Your task to perform on an android device: Search for jbl charge 4 on ebay.com, select the first entry, add it to the cart, then select checkout. Image 0: 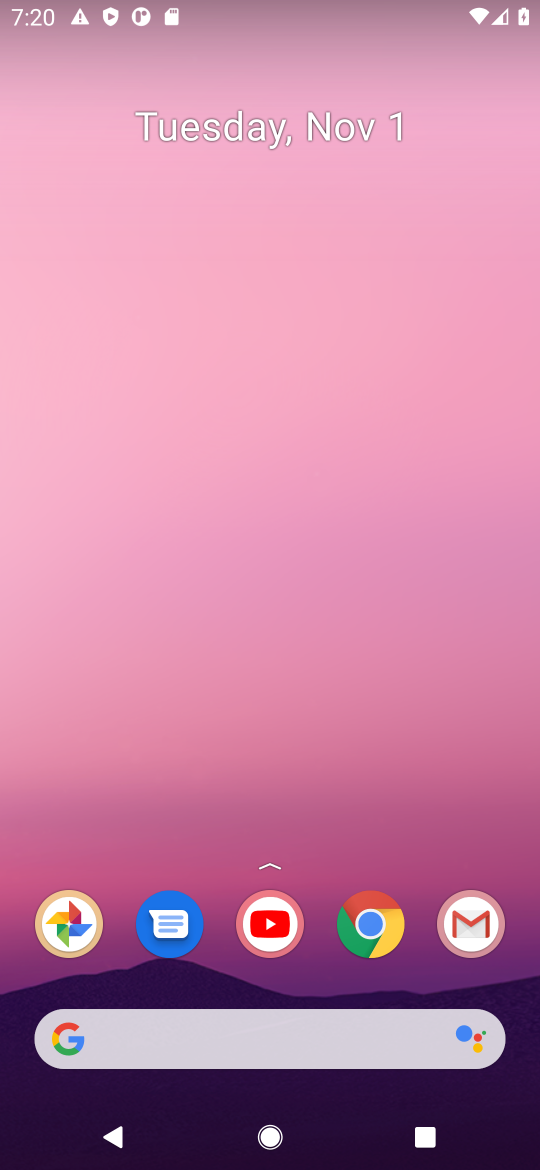
Step 0: press home button
Your task to perform on an android device: Search for jbl charge 4 on ebay.com, select the first entry, add it to the cart, then select checkout. Image 1: 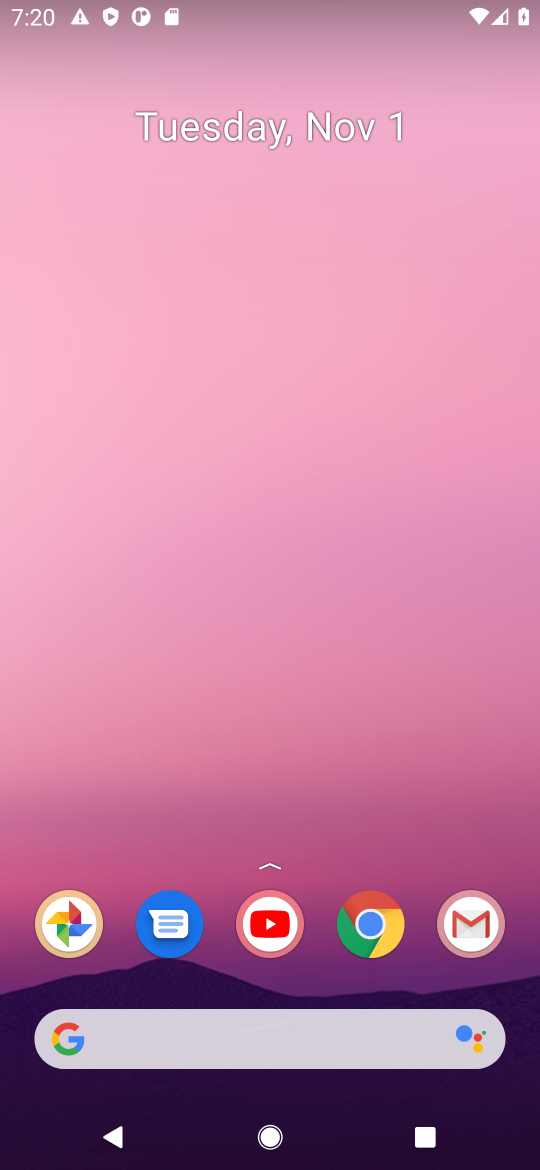
Step 1: click (94, 1039)
Your task to perform on an android device: Search for jbl charge 4 on ebay.com, select the first entry, add it to the cart, then select checkout. Image 2: 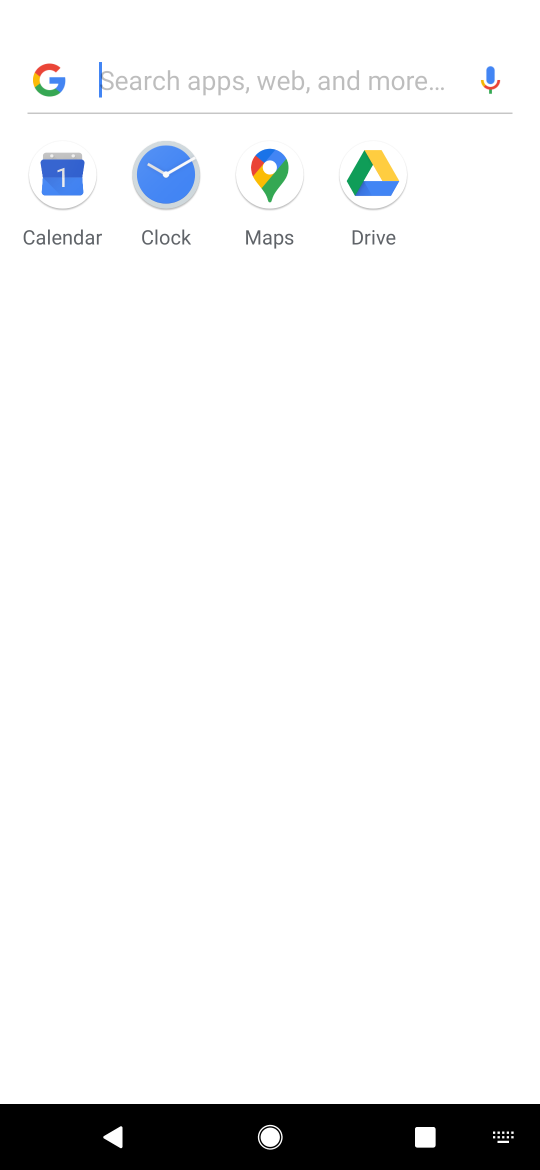
Step 2: type "ebay.com,"
Your task to perform on an android device: Search for jbl charge 4 on ebay.com, select the first entry, add it to the cart, then select checkout. Image 3: 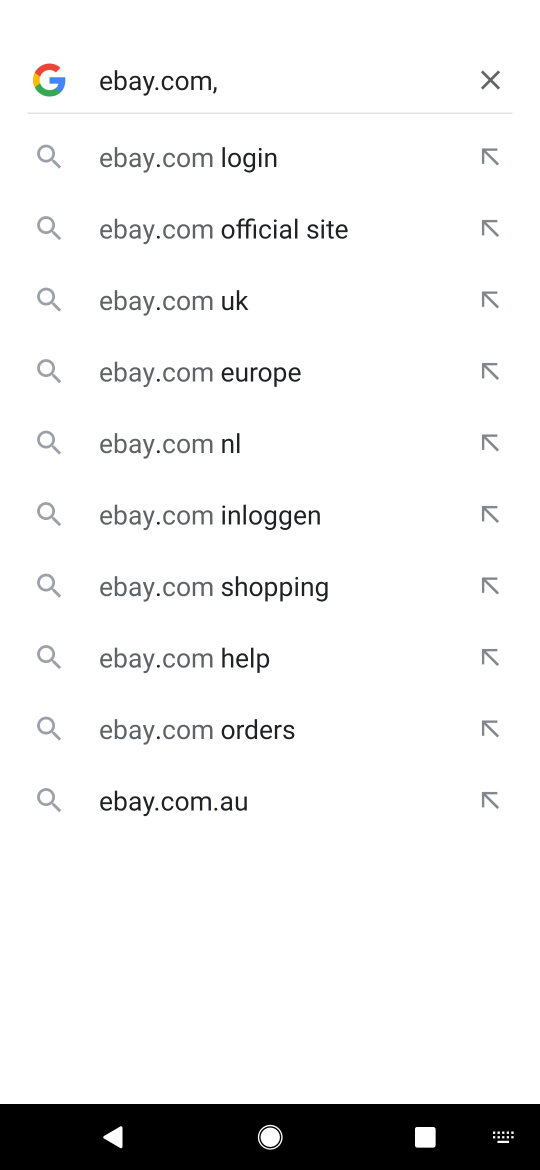
Step 3: press enter
Your task to perform on an android device: Search for jbl charge 4 on ebay.com, select the first entry, add it to the cart, then select checkout. Image 4: 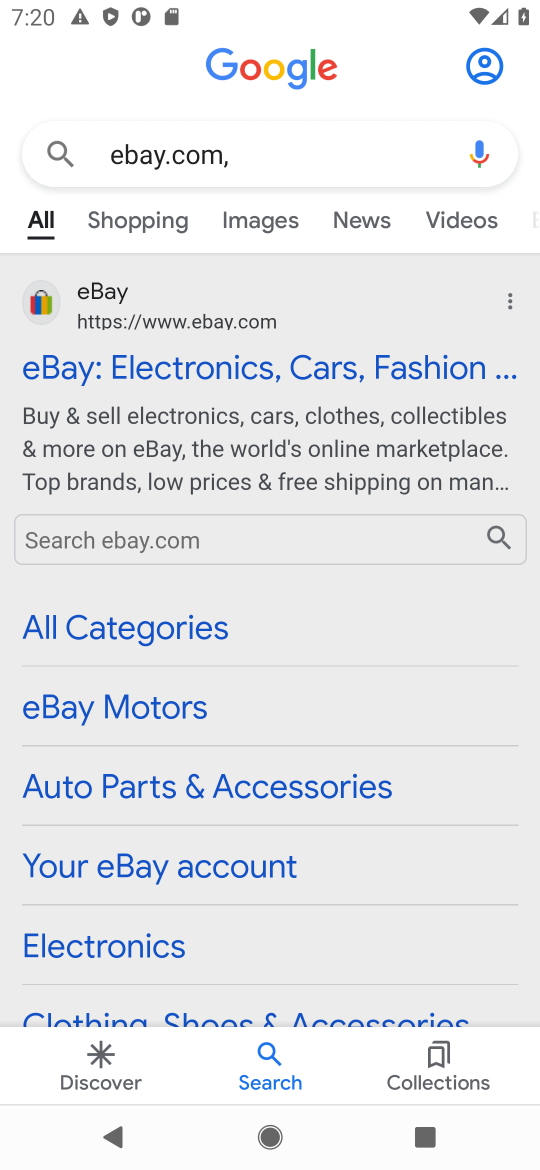
Step 4: click (314, 365)
Your task to perform on an android device: Search for jbl charge 4 on ebay.com, select the first entry, add it to the cart, then select checkout. Image 5: 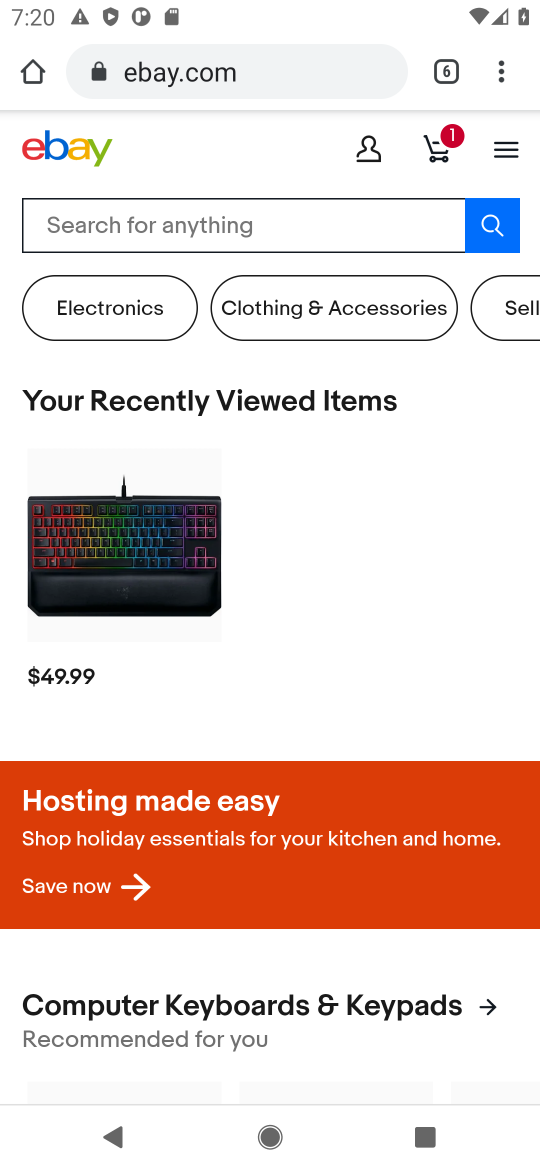
Step 5: click (46, 218)
Your task to perform on an android device: Search for jbl charge 4 on ebay.com, select the first entry, add it to the cart, then select checkout. Image 6: 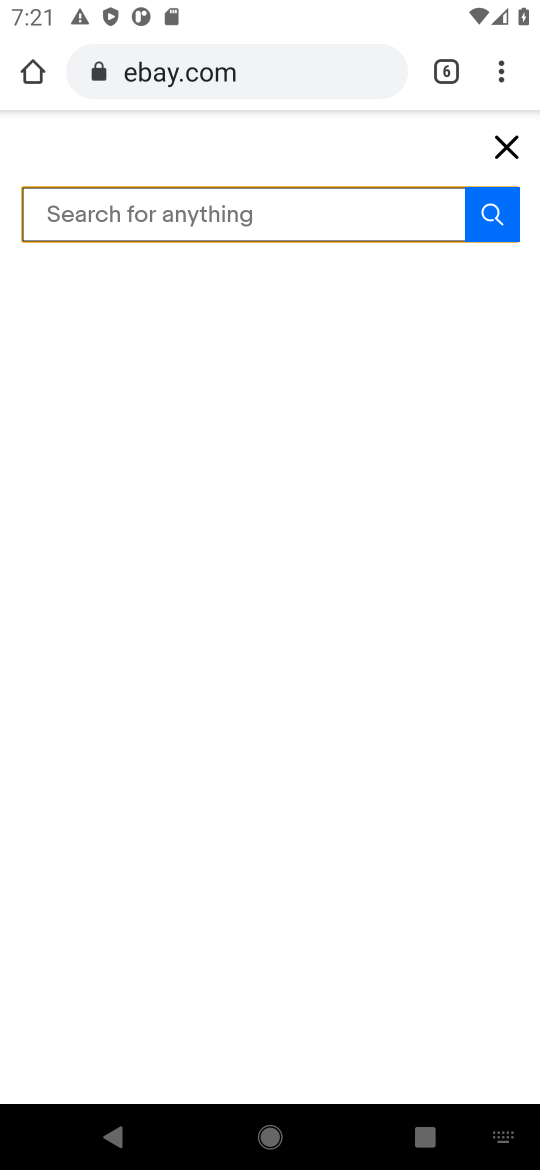
Step 6: type "jbl charge 4"
Your task to perform on an android device: Search for jbl charge 4 on ebay.com, select the first entry, add it to the cart, then select checkout. Image 7: 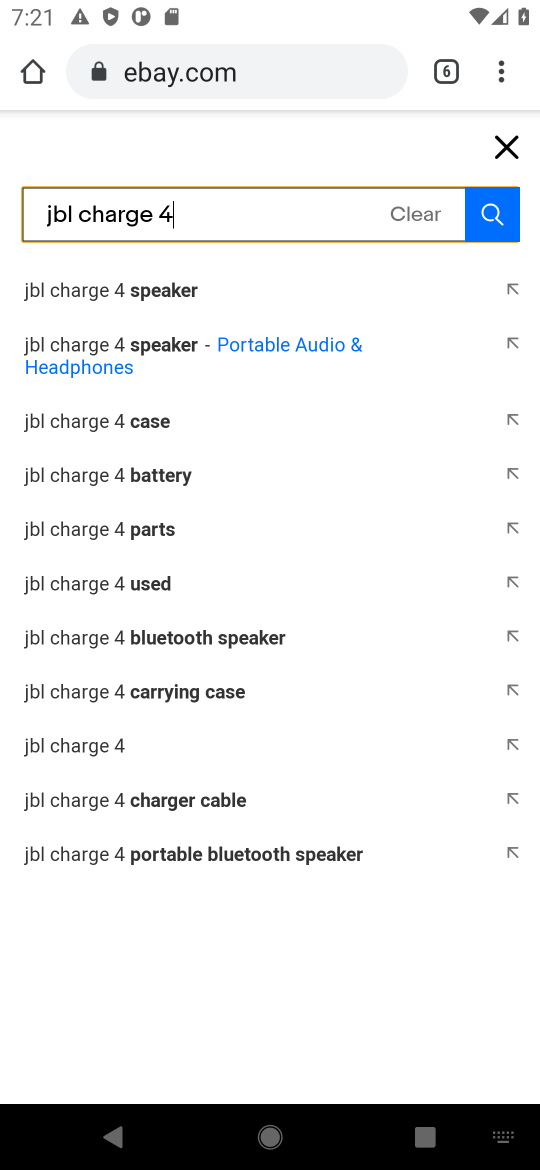
Step 7: click (500, 209)
Your task to perform on an android device: Search for jbl charge 4 on ebay.com, select the first entry, add it to the cart, then select checkout. Image 8: 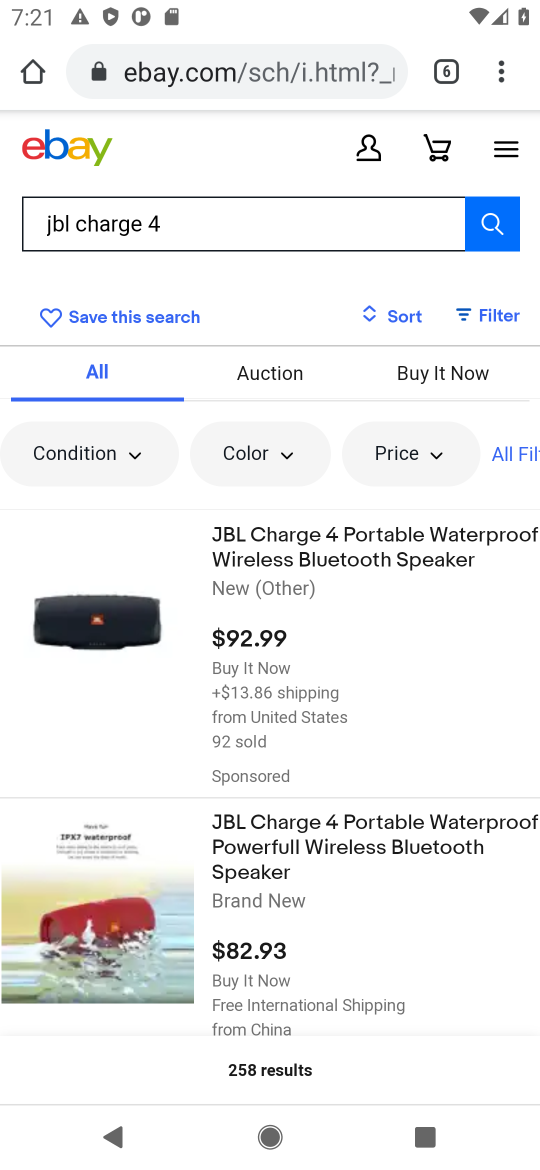
Step 8: click (334, 564)
Your task to perform on an android device: Search for jbl charge 4 on ebay.com, select the first entry, add it to the cart, then select checkout. Image 9: 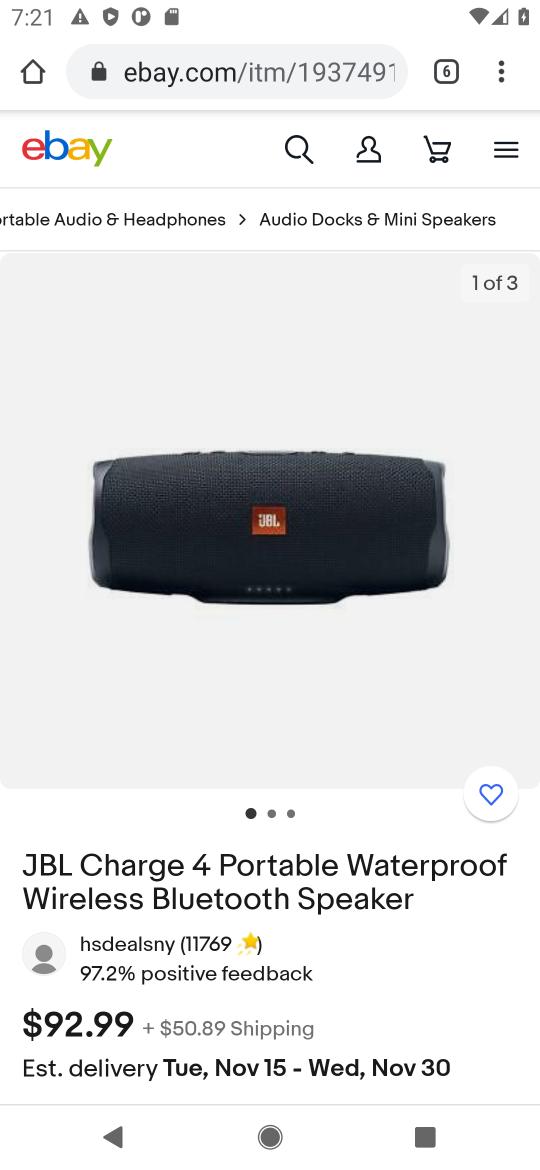
Step 9: drag from (372, 848) to (382, 520)
Your task to perform on an android device: Search for jbl charge 4 on ebay.com, select the first entry, add it to the cart, then select checkout. Image 10: 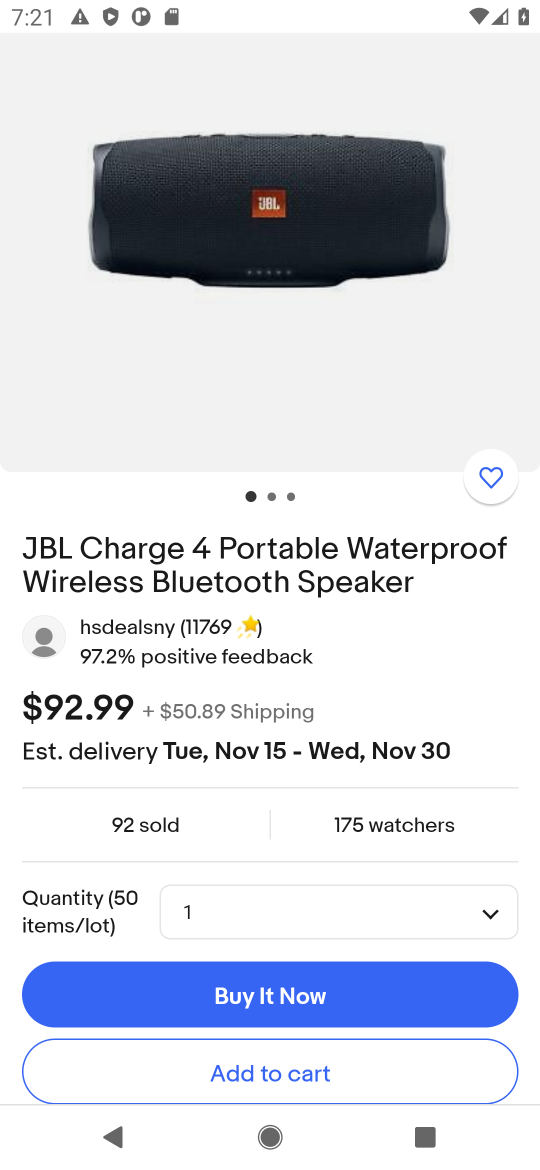
Step 10: drag from (360, 912) to (332, 475)
Your task to perform on an android device: Search for jbl charge 4 on ebay.com, select the first entry, add it to the cart, then select checkout. Image 11: 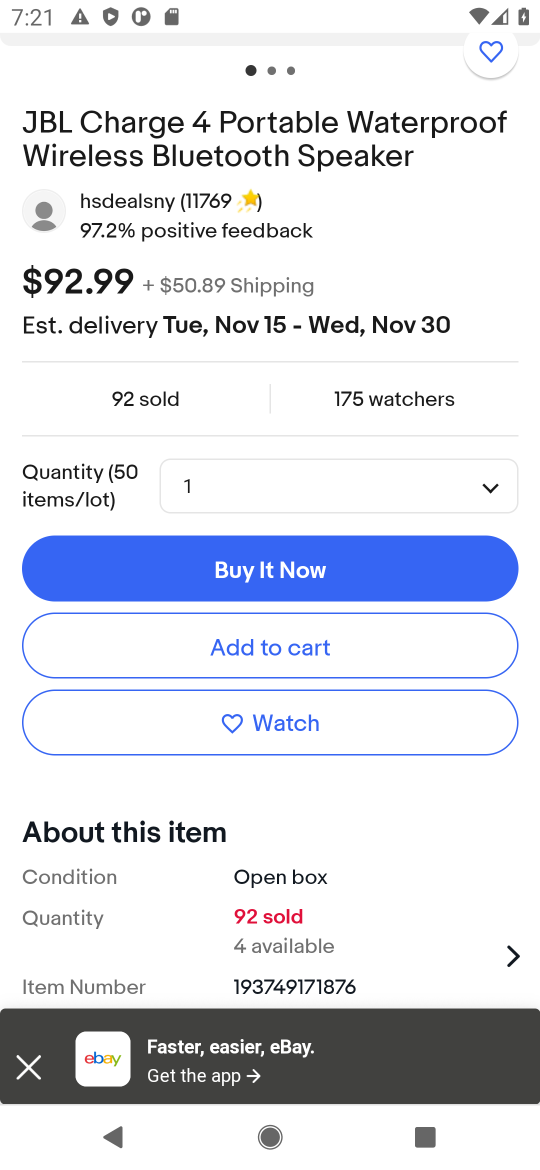
Step 11: click (302, 653)
Your task to perform on an android device: Search for jbl charge 4 on ebay.com, select the first entry, add it to the cart, then select checkout. Image 12: 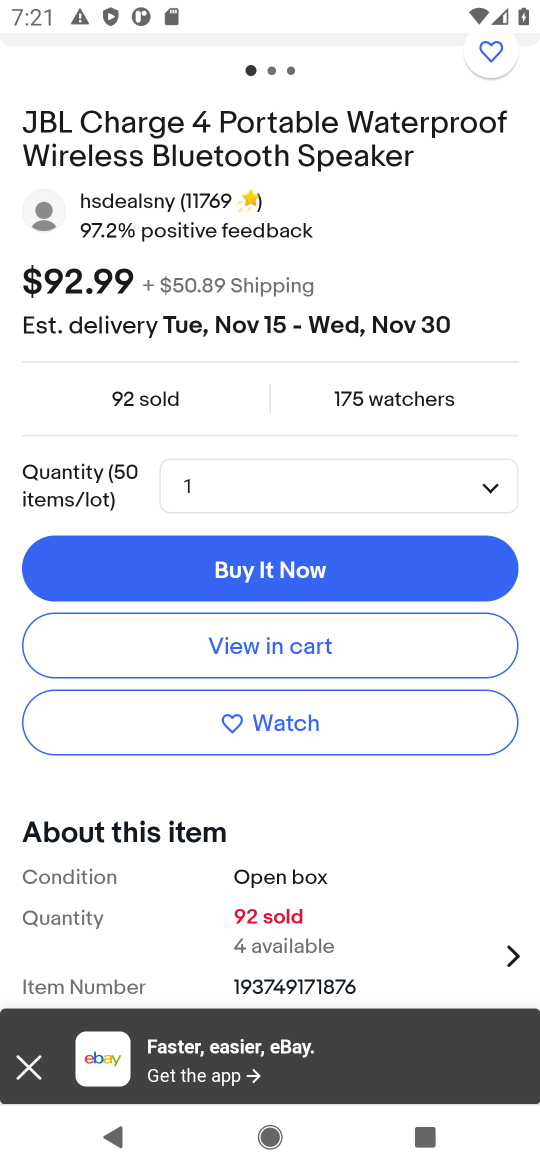
Step 12: click (293, 647)
Your task to perform on an android device: Search for jbl charge 4 on ebay.com, select the first entry, add it to the cart, then select checkout. Image 13: 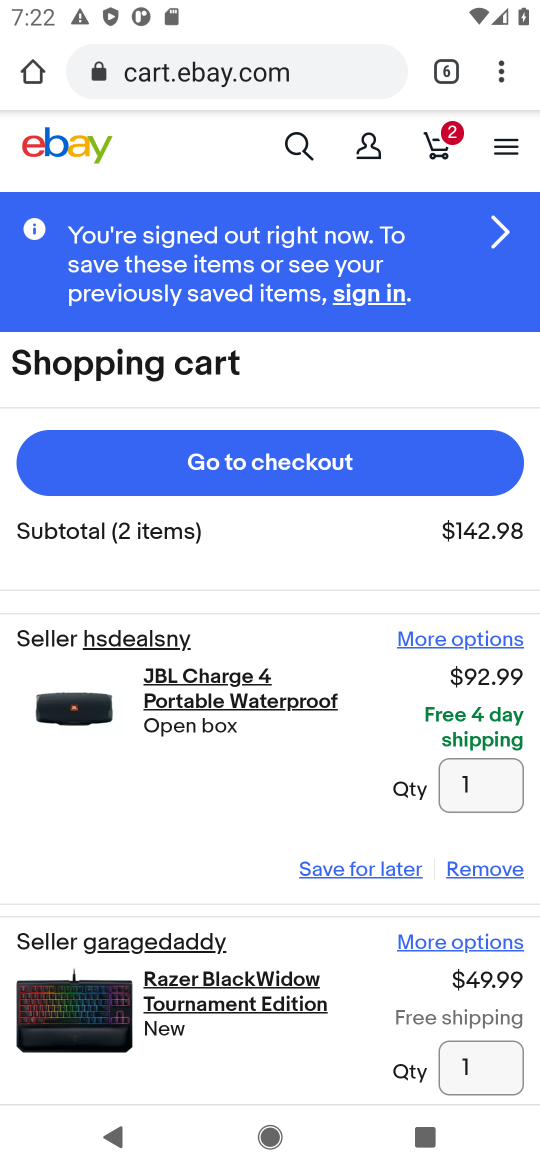
Step 13: click (301, 473)
Your task to perform on an android device: Search for jbl charge 4 on ebay.com, select the first entry, add it to the cart, then select checkout. Image 14: 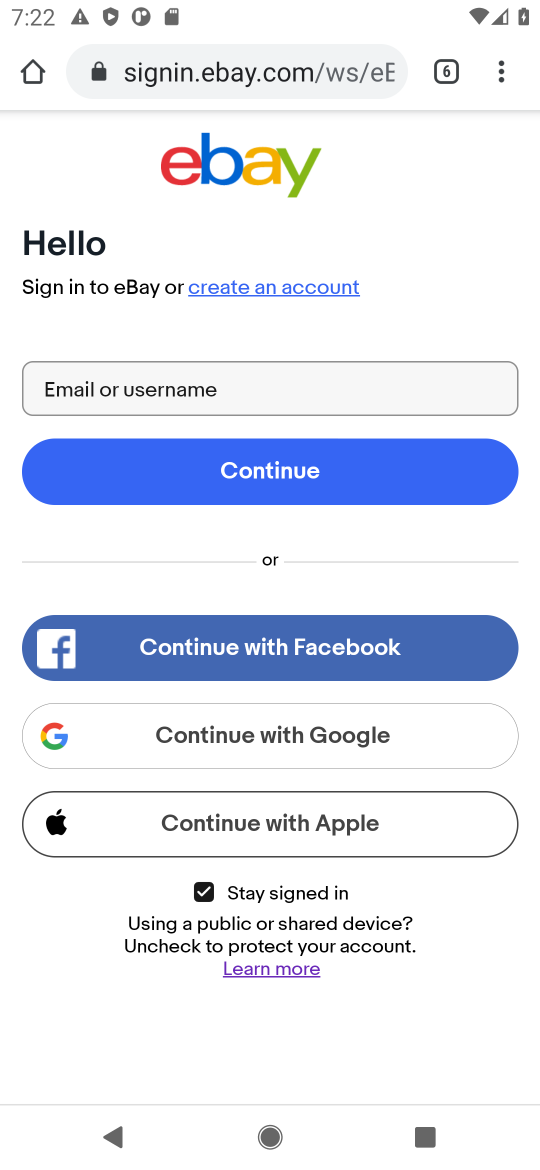
Step 14: task complete